Your task to perform on an android device: Open the web browser Image 0: 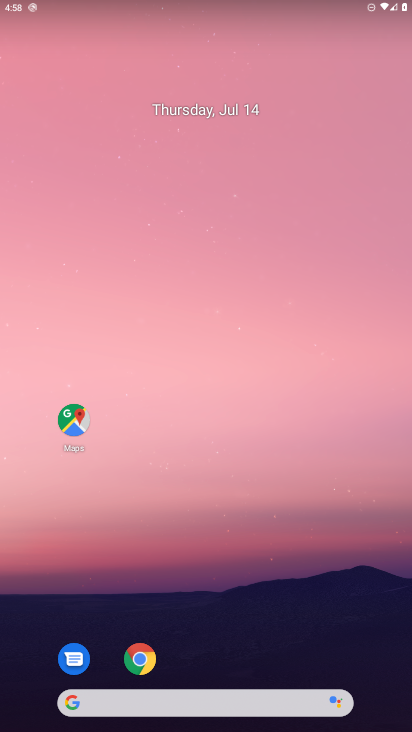
Step 0: click (137, 655)
Your task to perform on an android device: Open the web browser Image 1: 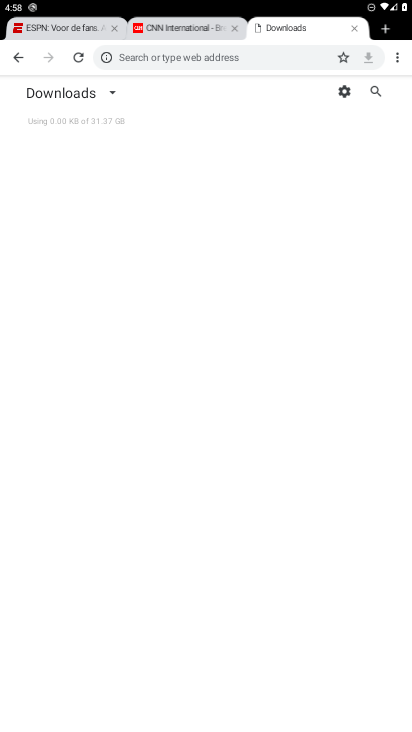
Step 1: task complete